Your task to perform on an android device: Search for sony triple a on ebay, select the first entry, and add it to the cart. Image 0: 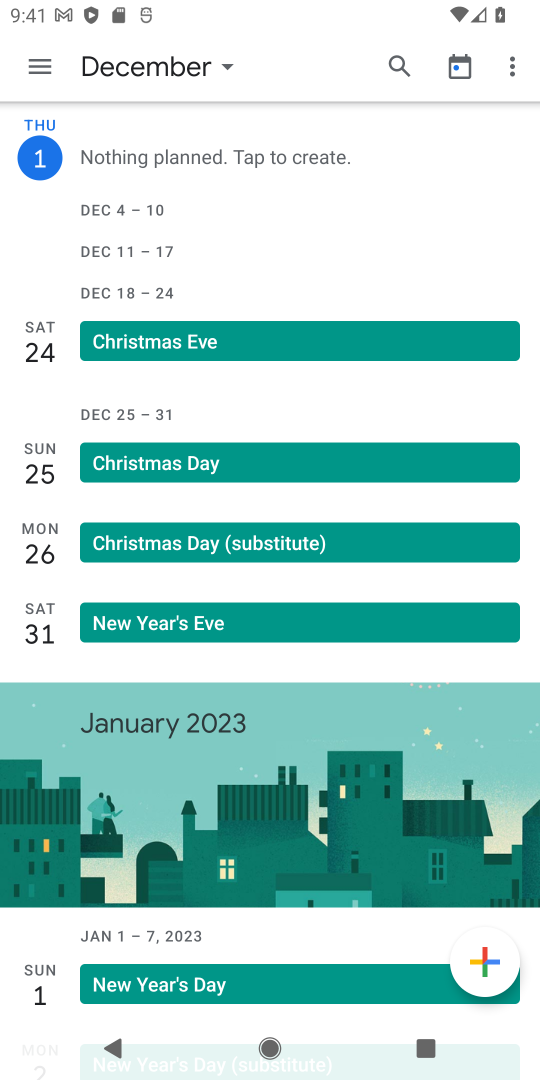
Step 0: press home button
Your task to perform on an android device: Search for sony triple a on ebay, select the first entry, and add it to the cart. Image 1: 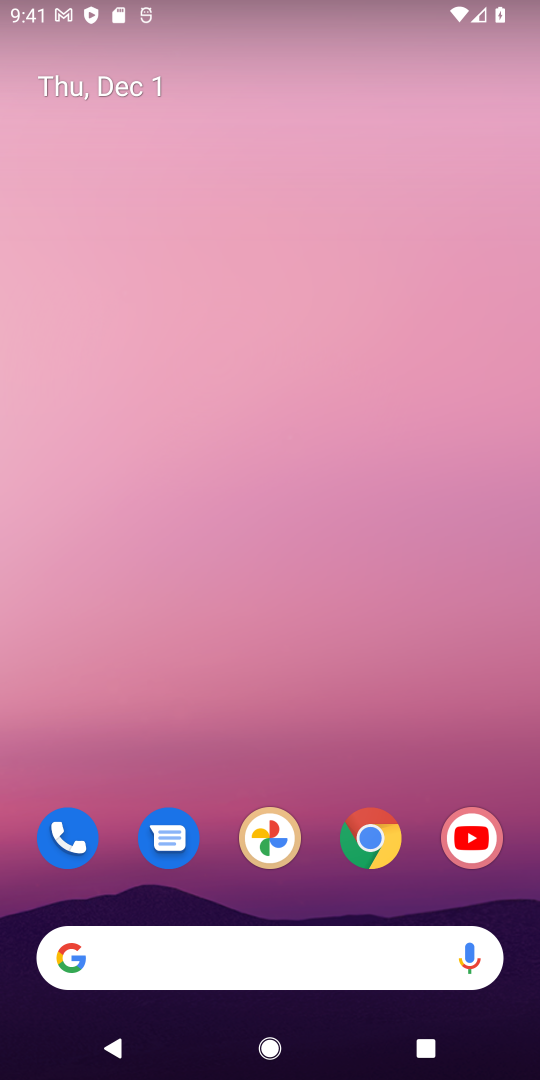
Step 1: drag from (180, 894) to (194, 478)
Your task to perform on an android device: Search for sony triple a on ebay, select the first entry, and add it to the cart. Image 2: 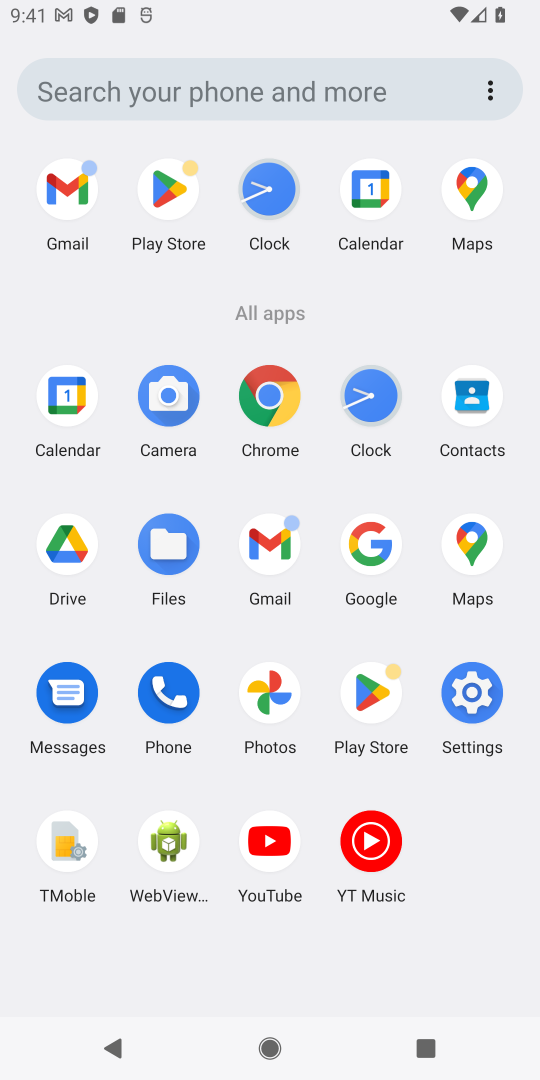
Step 2: click (364, 545)
Your task to perform on an android device: Search for sony triple a on ebay, select the first entry, and add it to the cart. Image 3: 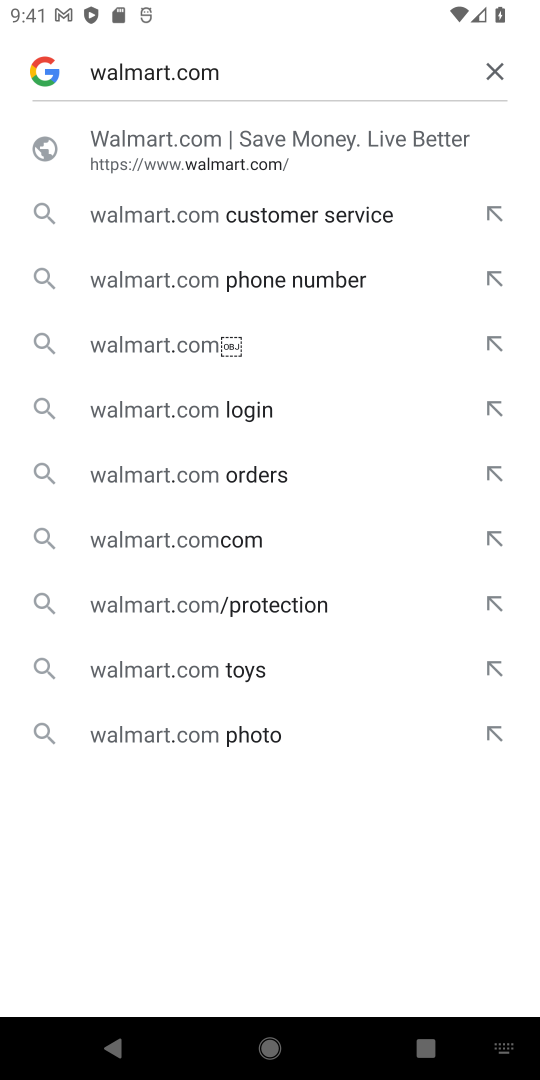
Step 3: click (490, 72)
Your task to perform on an android device: Search for sony triple a on ebay, select the first entry, and add it to the cart. Image 4: 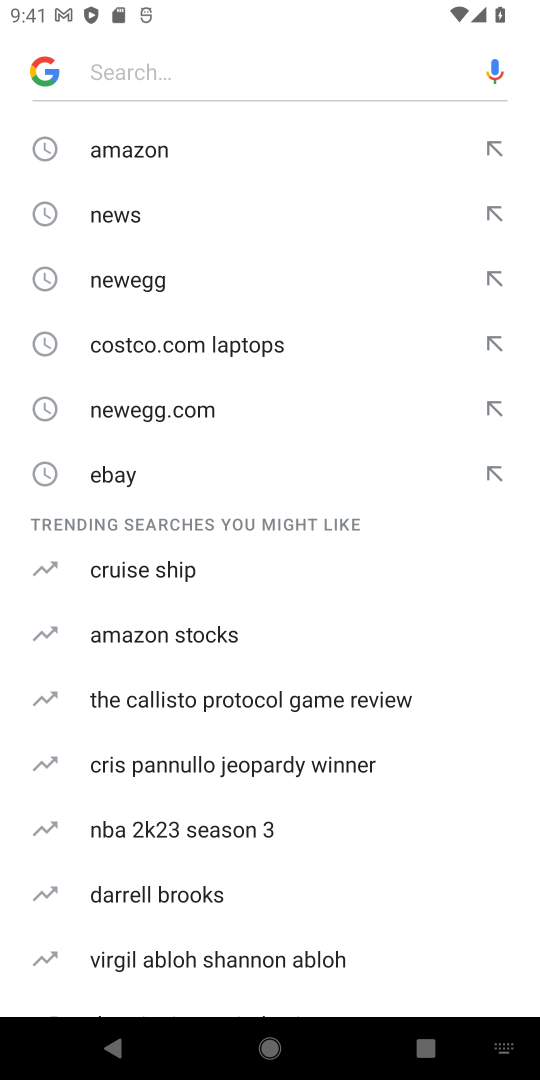
Step 4: click (125, 466)
Your task to perform on an android device: Search for sony triple a on ebay, select the first entry, and add it to the cart. Image 5: 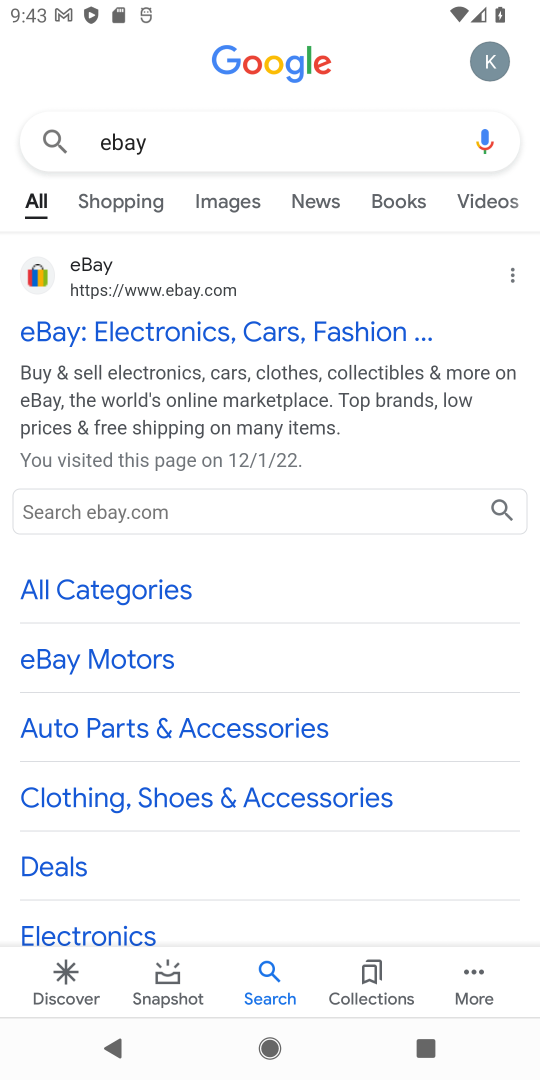
Step 5: click (181, 332)
Your task to perform on an android device: Search for sony triple a on ebay, select the first entry, and add it to the cart. Image 6: 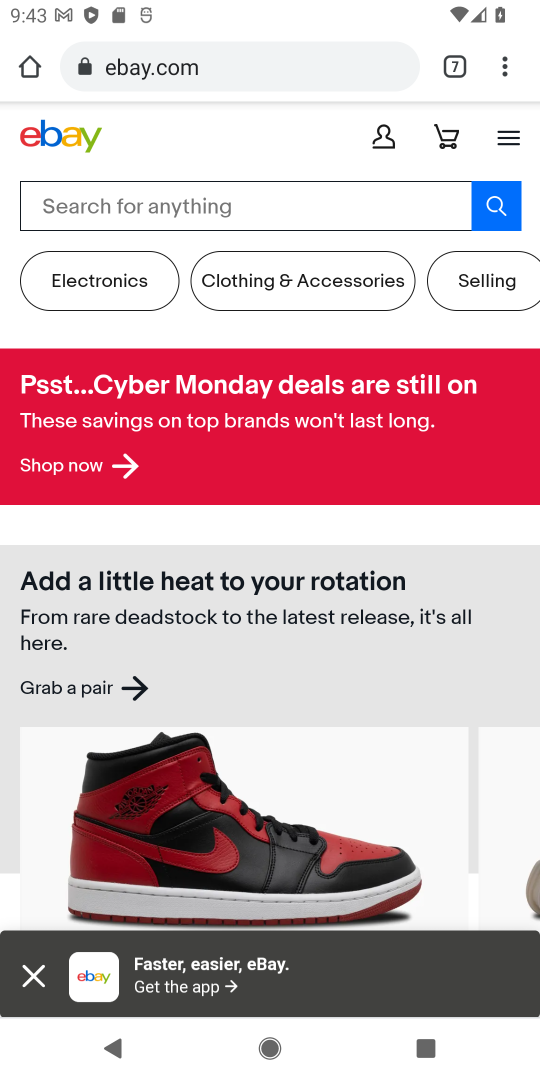
Step 6: click (274, 208)
Your task to perform on an android device: Search for sony triple a on ebay, select the first entry, and add it to the cart. Image 7: 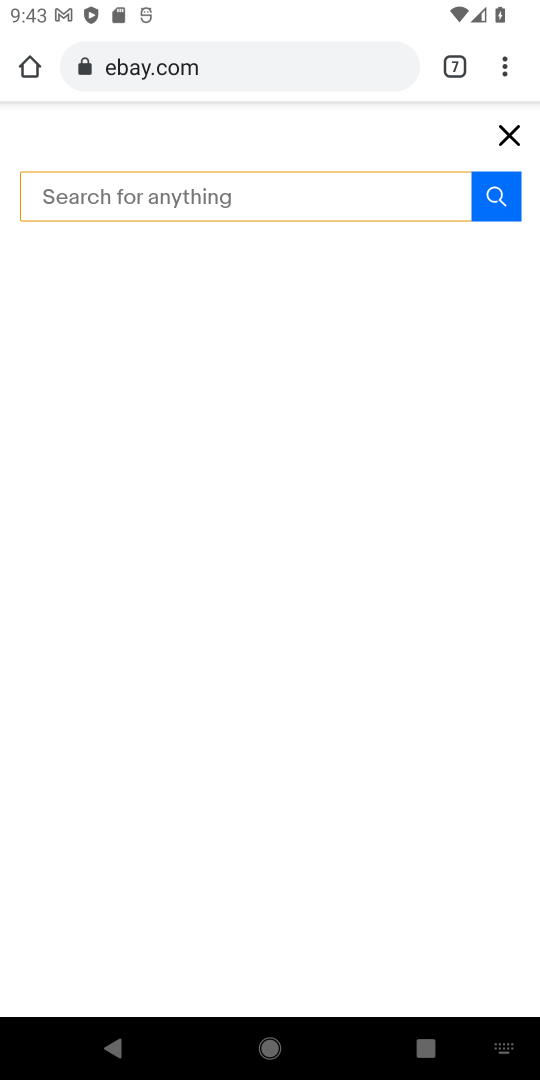
Step 7: type "sony triple a"
Your task to perform on an android device: Search for sony triple a on ebay, select the first entry, and add it to the cart. Image 8: 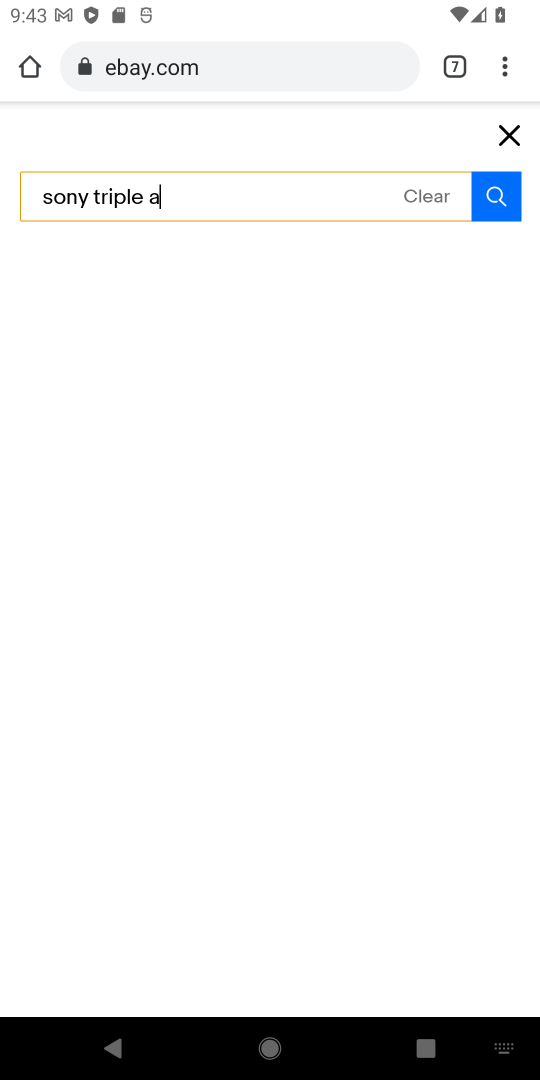
Step 8: click (492, 194)
Your task to perform on an android device: Search for sony triple a on ebay, select the first entry, and add it to the cart. Image 9: 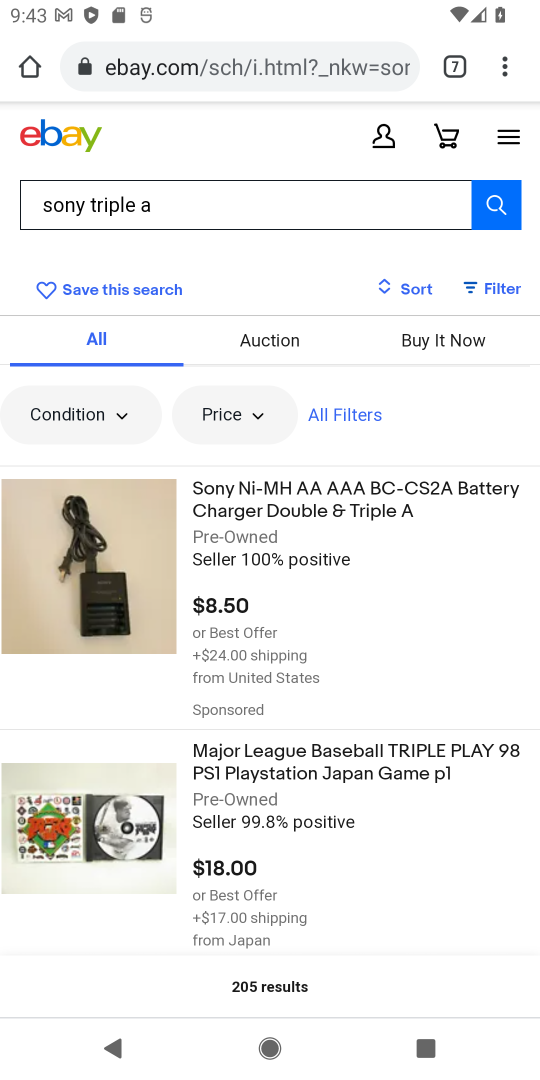
Step 9: click (217, 528)
Your task to perform on an android device: Search for sony triple a on ebay, select the first entry, and add it to the cart. Image 10: 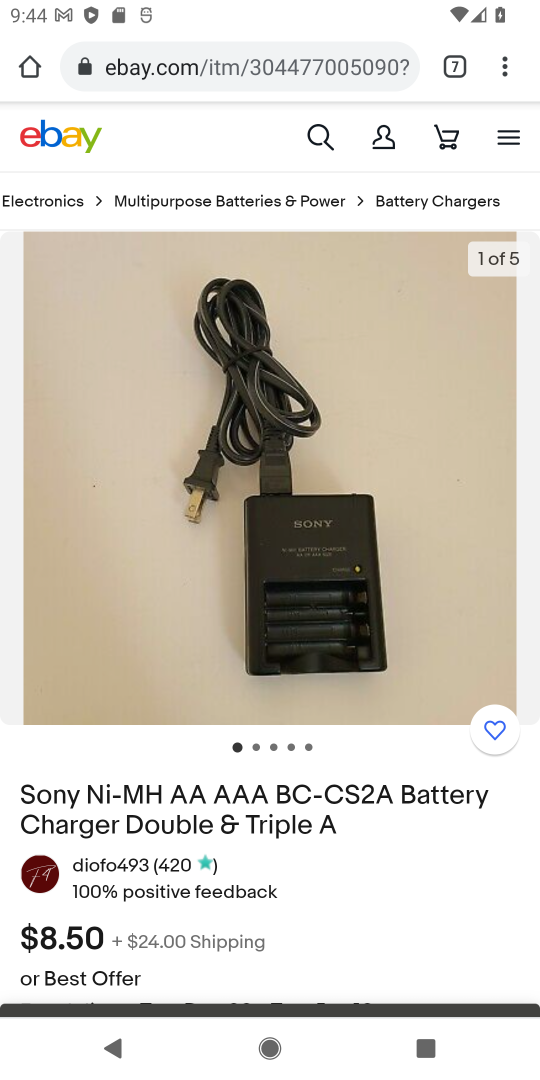
Step 10: drag from (355, 813) to (355, 335)
Your task to perform on an android device: Search for sony triple a on ebay, select the first entry, and add it to the cart. Image 11: 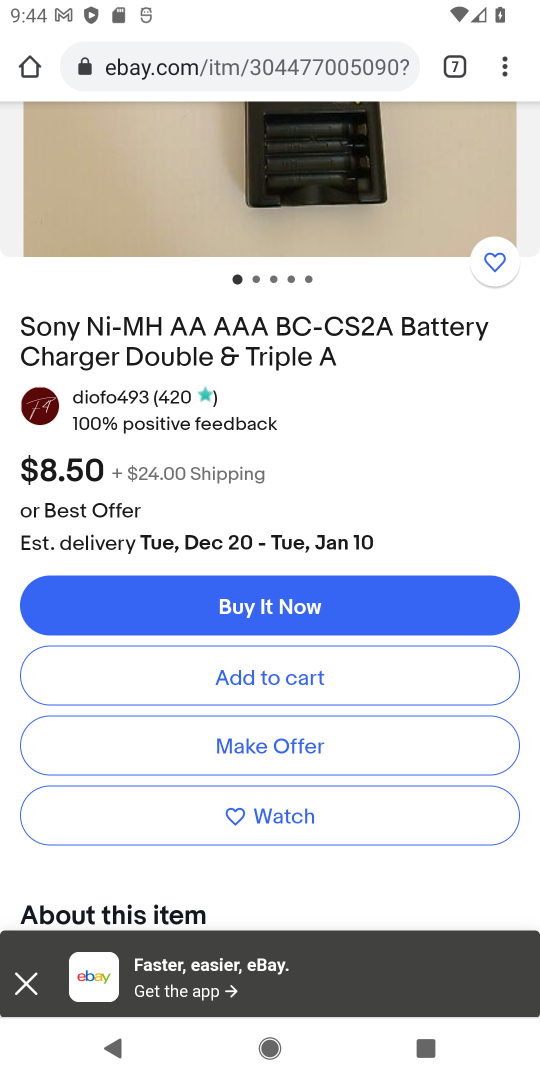
Step 11: click (277, 673)
Your task to perform on an android device: Search for sony triple a on ebay, select the first entry, and add it to the cart. Image 12: 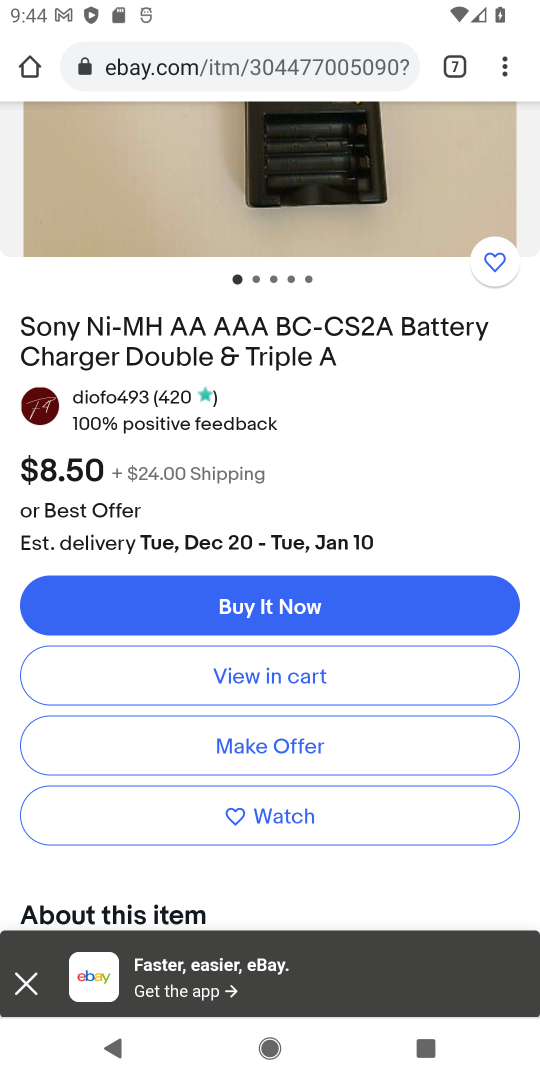
Step 12: task complete